Your task to perform on an android device: open app "DoorDash - Dasher" Image 0: 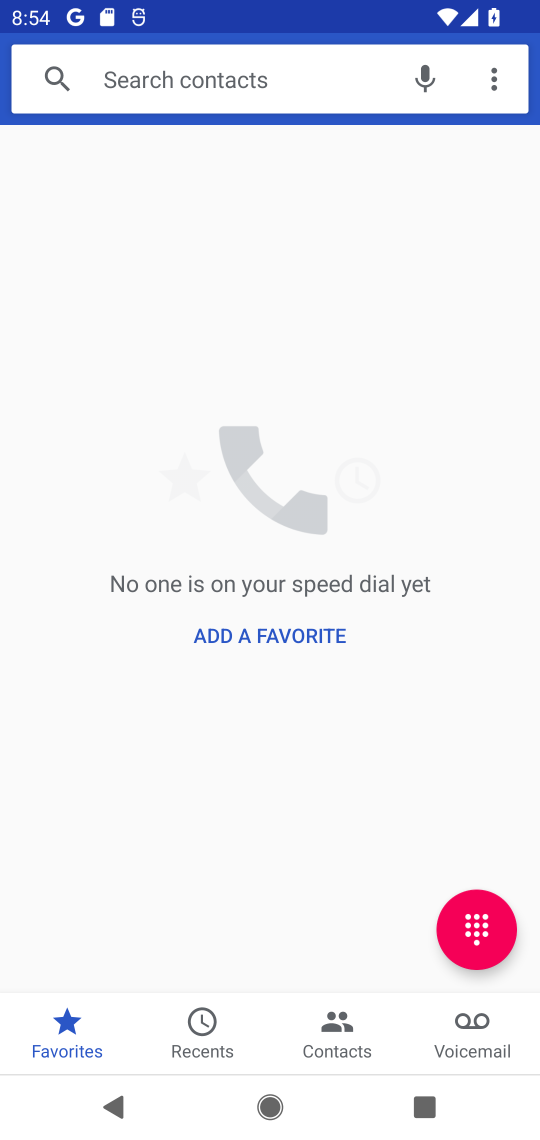
Step 0: press home button
Your task to perform on an android device: open app "DoorDash - Dasher" Image 1: 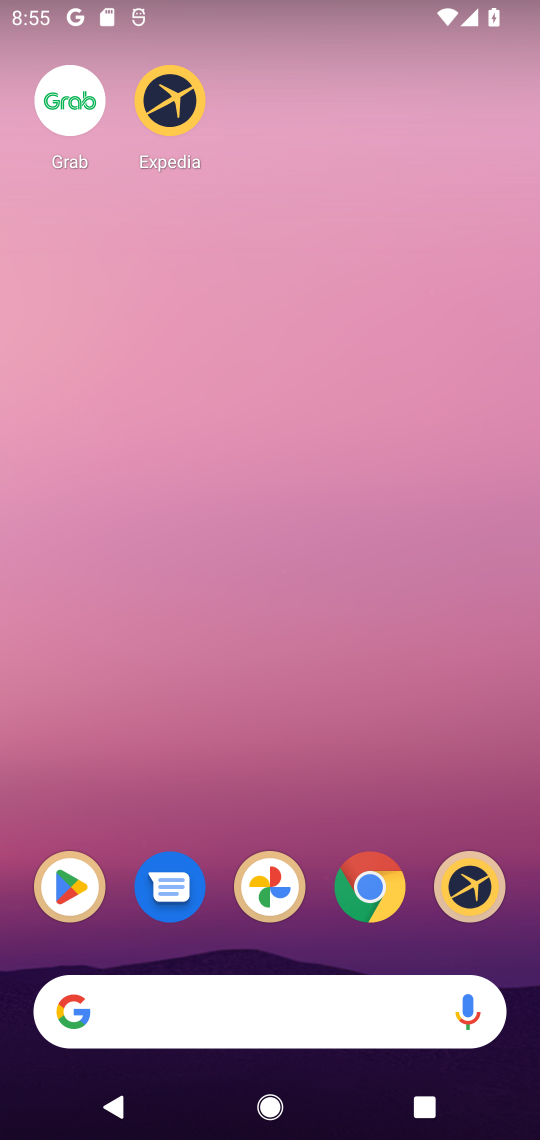
Step 1: click (67, 886)
Your task to perform on an android device: open app "DoorDash - Dasher" Image 2: 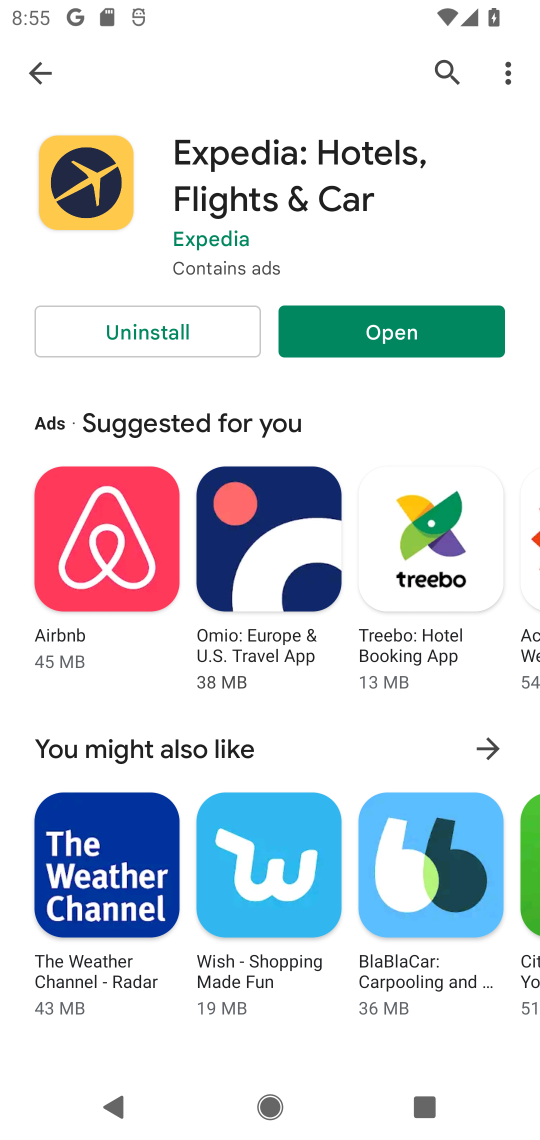
Step 2: click (445, 65)
Your task to perform on an android device: open app "DoorDash - Dasher" Image 3: 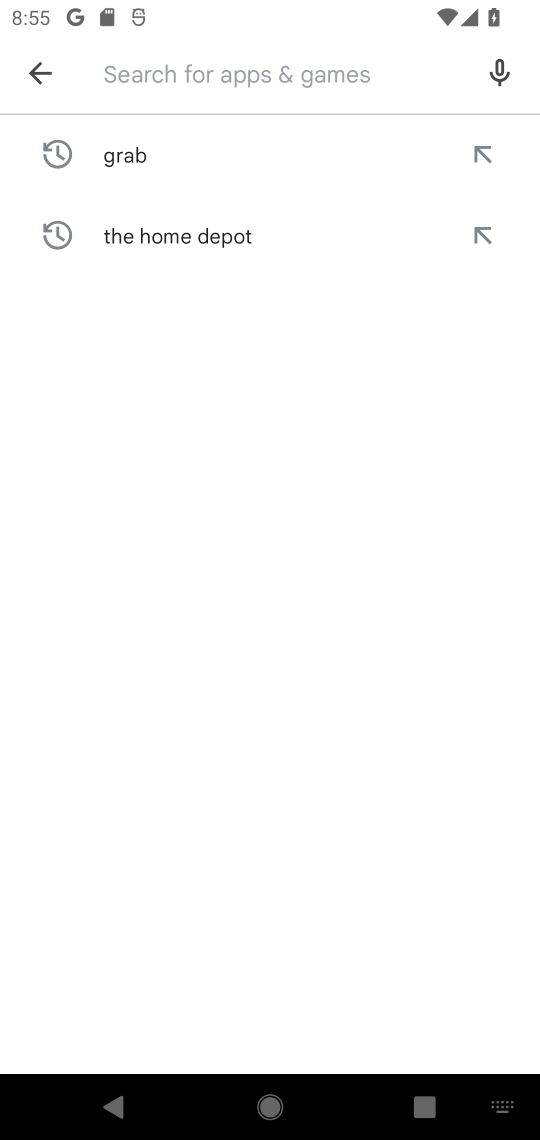
Step 3: type "DoorDash - Dasher"
Your task to perform on an android device: open app "DoorDash - Dasher" Image 4: 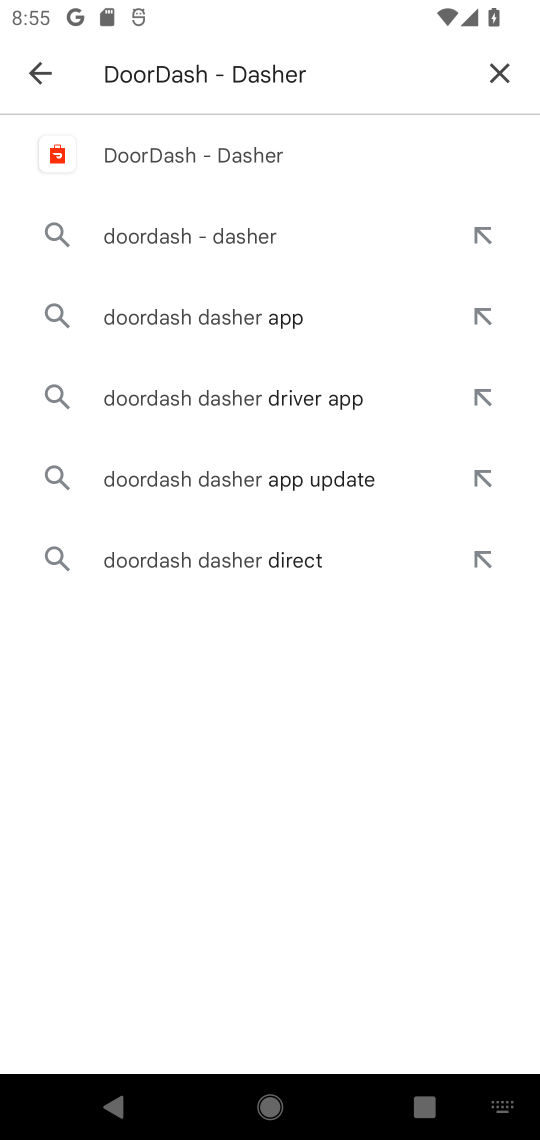
Step 4: click (172, 142)
Your task to perform on an android device: open app "DoorDash - Dasher" Image 5: 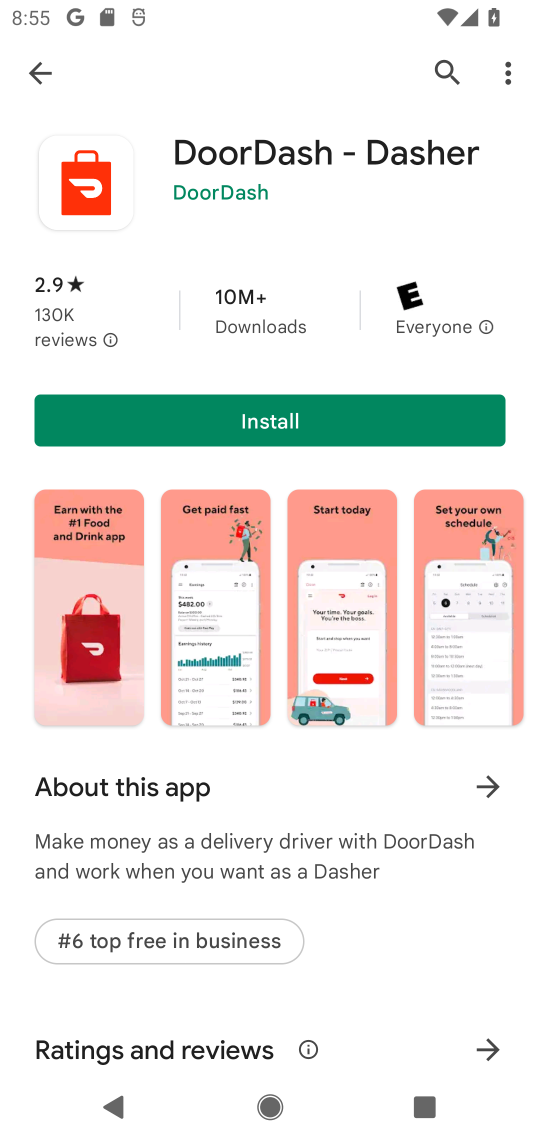
Step 5: task complete